Your task to perform on an android device: When is my next appointment? Image 0: 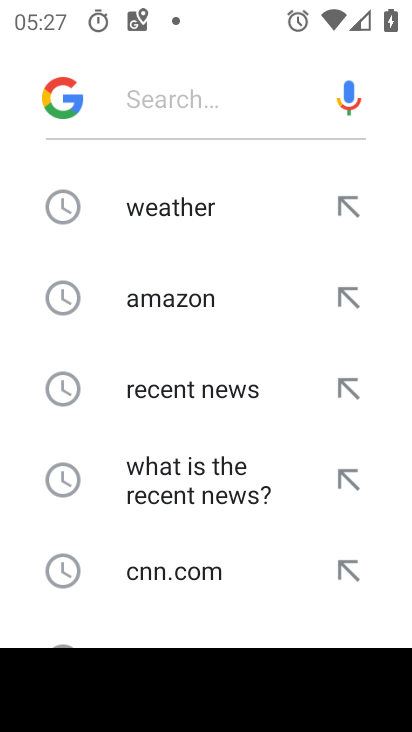
Step 0: press home button
Your task to perform on an android device: When is my next appointment? Image 1: 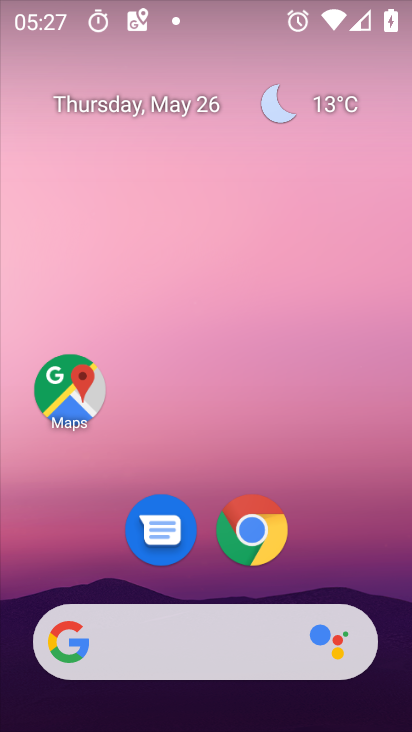
Step 1: drag from (168, 675) to (234, 1)
Your task to perform on an android device: When is my next appointment? Image 2: 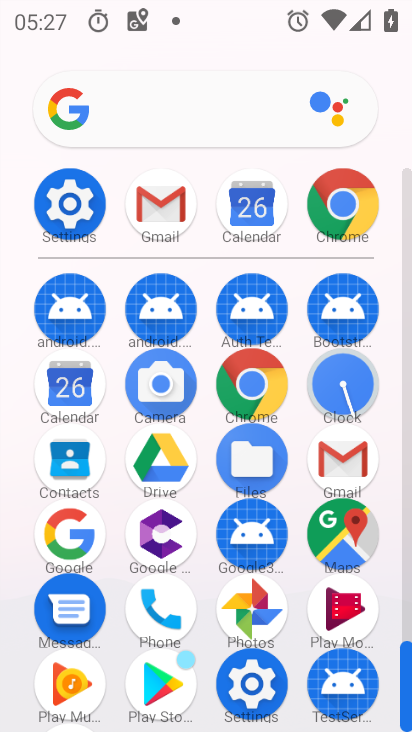
Step 2: click (74, 390)
Your task to perform on an android device: When is my next appointment? Image 3: 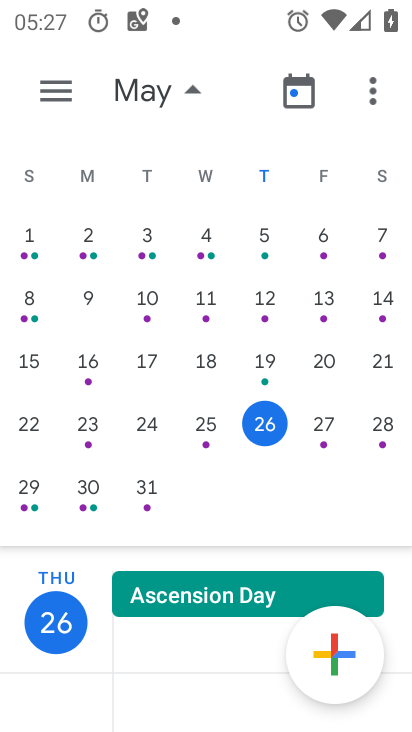
Step 3: click (315, 424)
Your task to perform on an android device: When is my next appointment? Image 4: 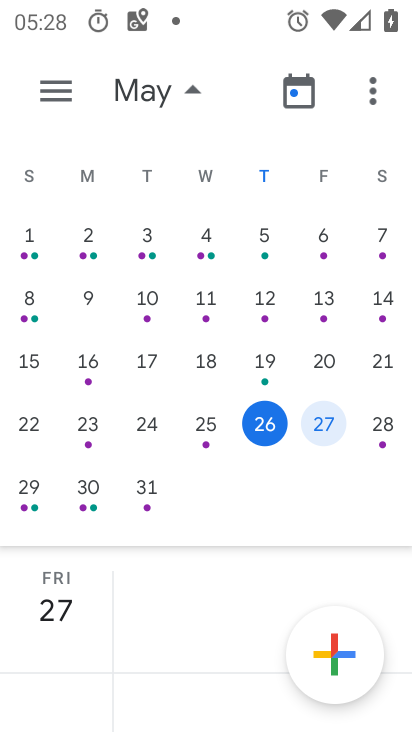
Step 4: click (336, 422)
Your task to perform on an android device: When is my next appointment? Image 5: 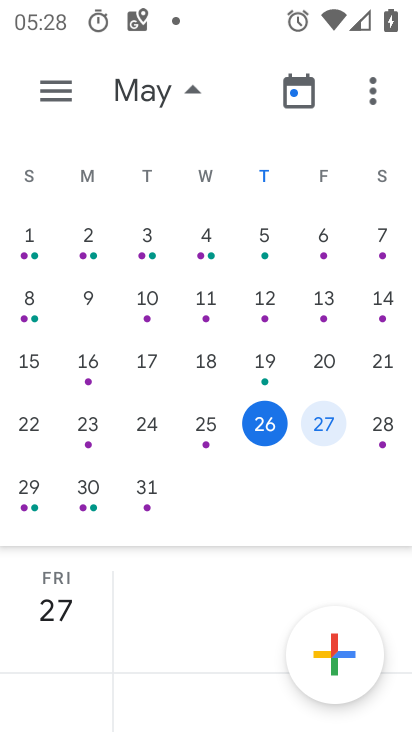
Step 5: click (336, 422)
Your task to perform on an android device: When is my next appointment? Image 6: 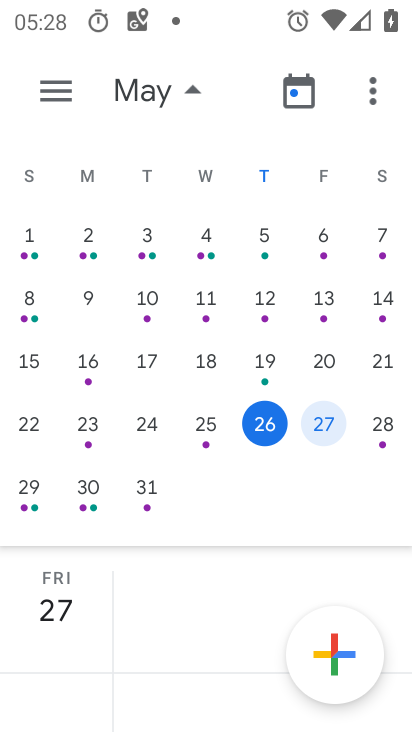
Step 6: task complete